Your task to perform on an android device: toggle notifications settings in the gmail app Image 0: 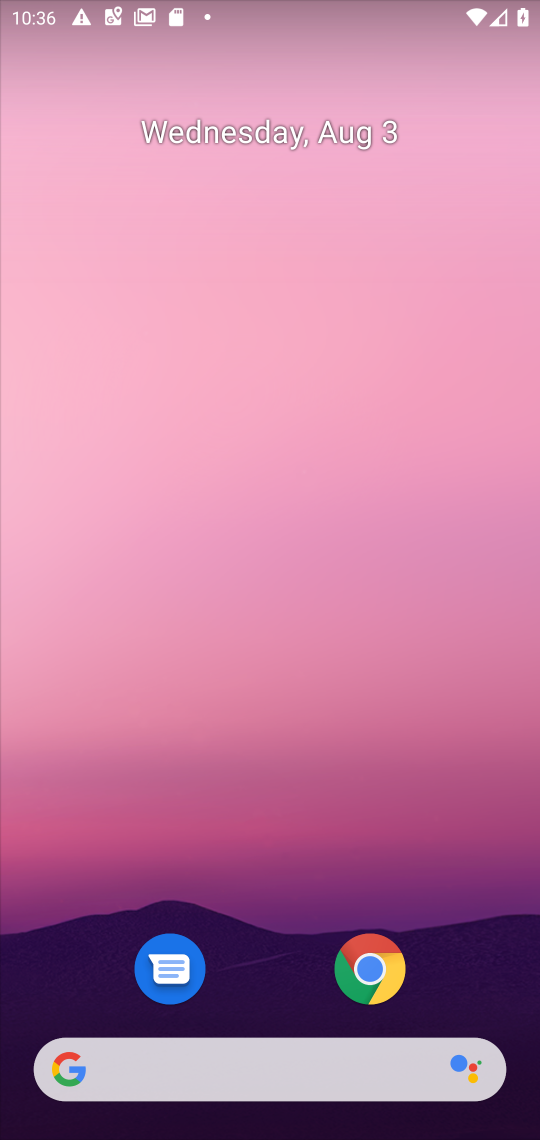
Step 0: drag from (306, 1005) to (143, 3)
Your task to perform on an android device: toggle notifications settings in the gmail app Image 1: 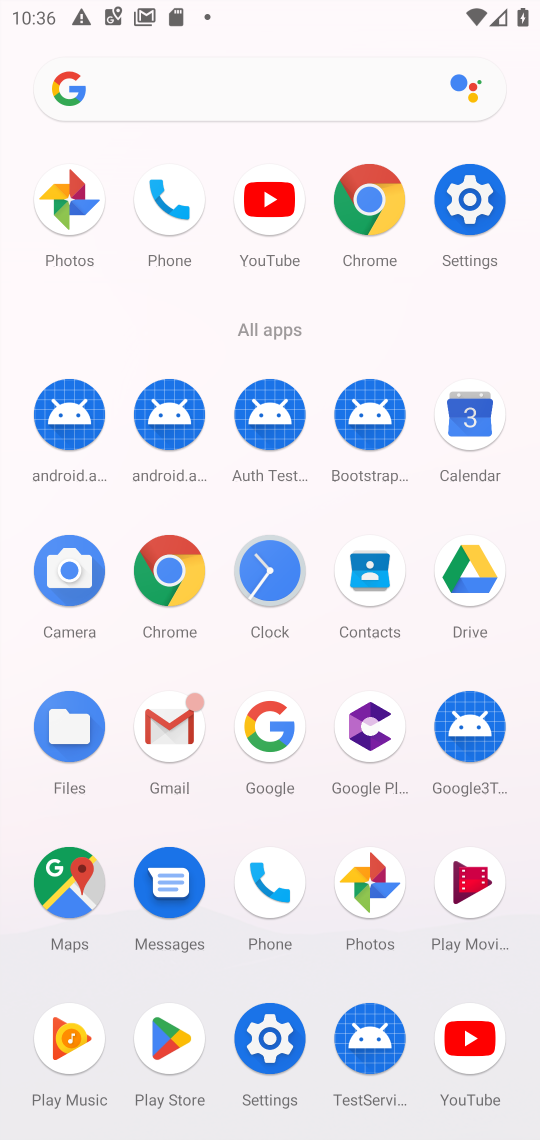
Step 1: click (194, 720)
Your task to perform on an android device: toggle notifications settings in the gmail app Image 2: 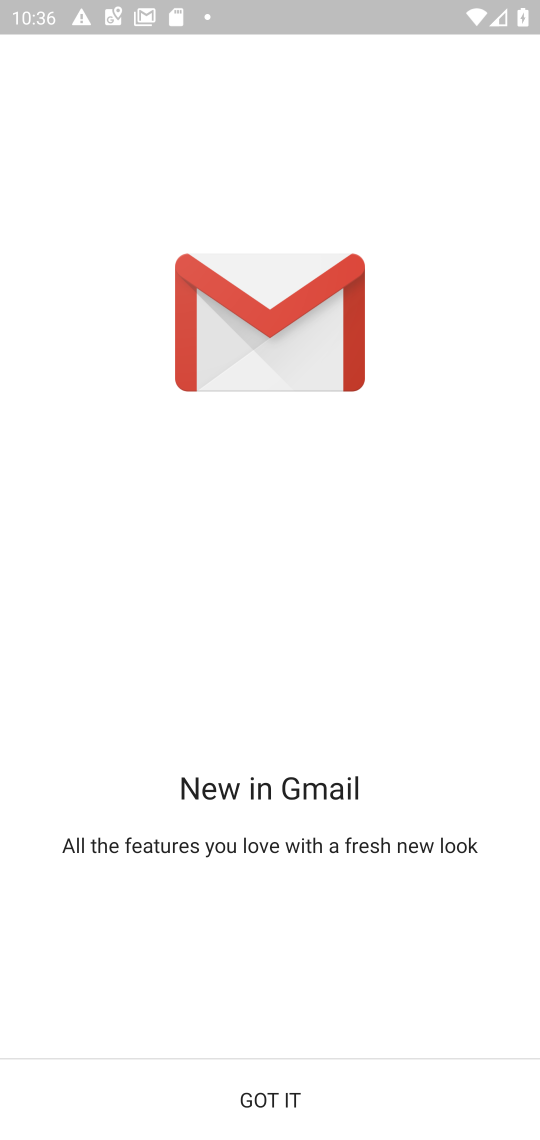
Step 2: click (267, 1080)
Your task to perform on an android device: toggle notifications settings in the gmail app Image 3: 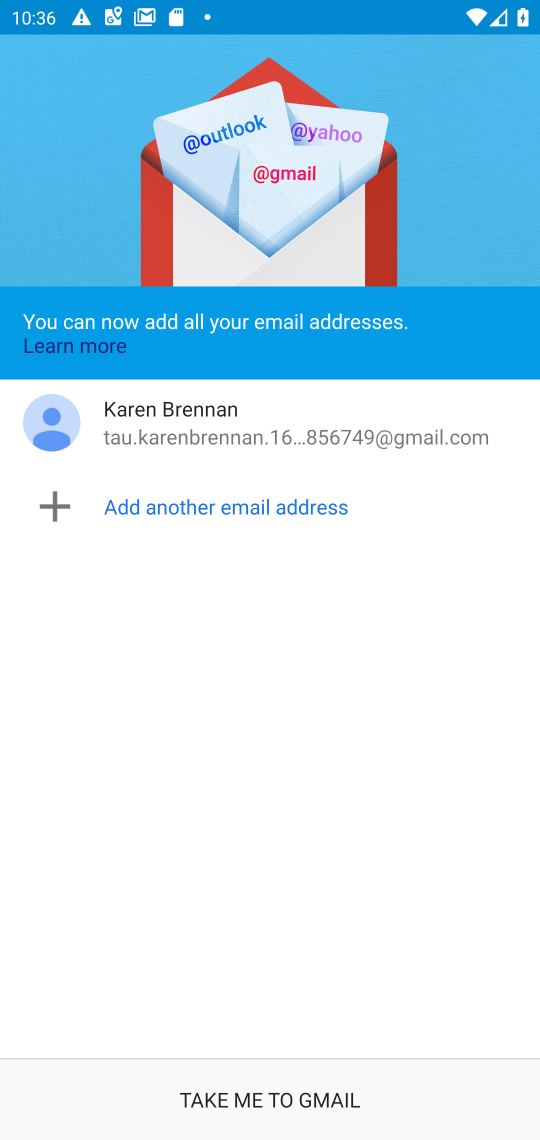
Step 3: click (328, 1079)
Your task to perform on an android device: toggle notifications settings in the gmail app Image 4: 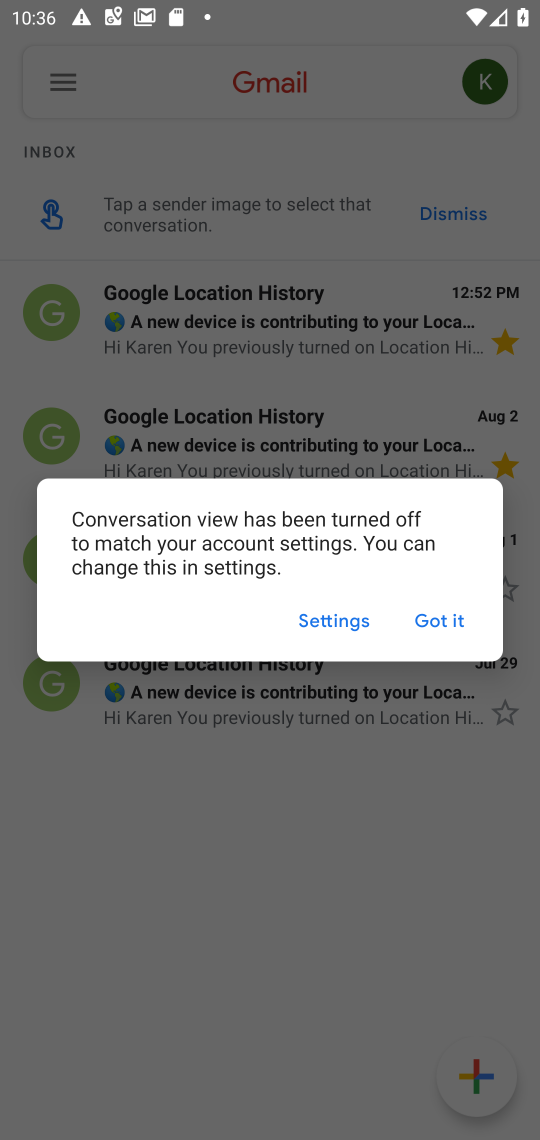
Step 4: click (444, 614)
Your task to perform on an android device: toggle notifications settings in the gmail app Image 5: 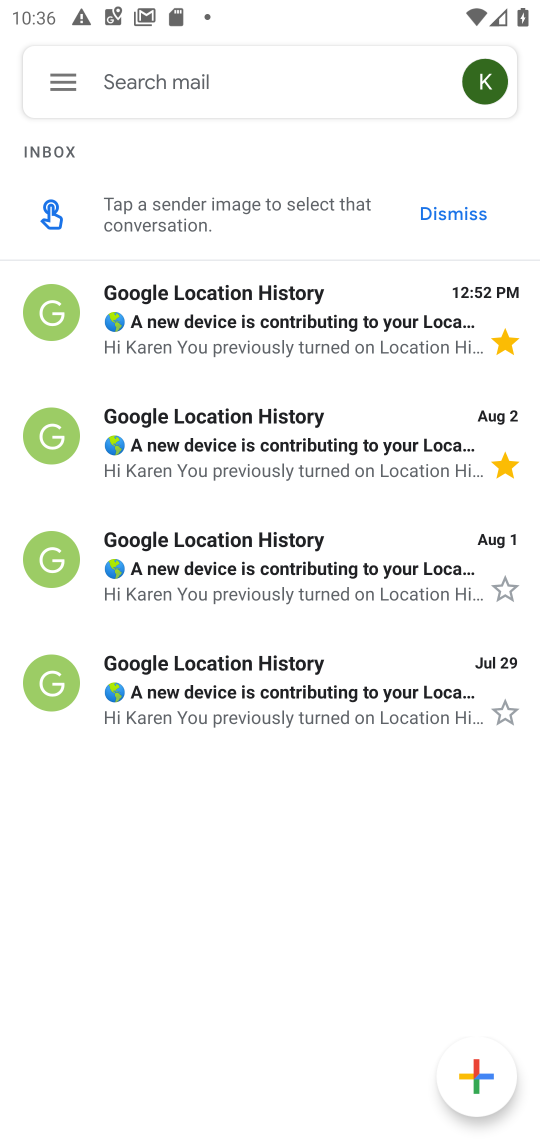
Step 5: click (40, 69)
Your task to perform on an android device: toggle notifications settings in the gmail app Image 6: 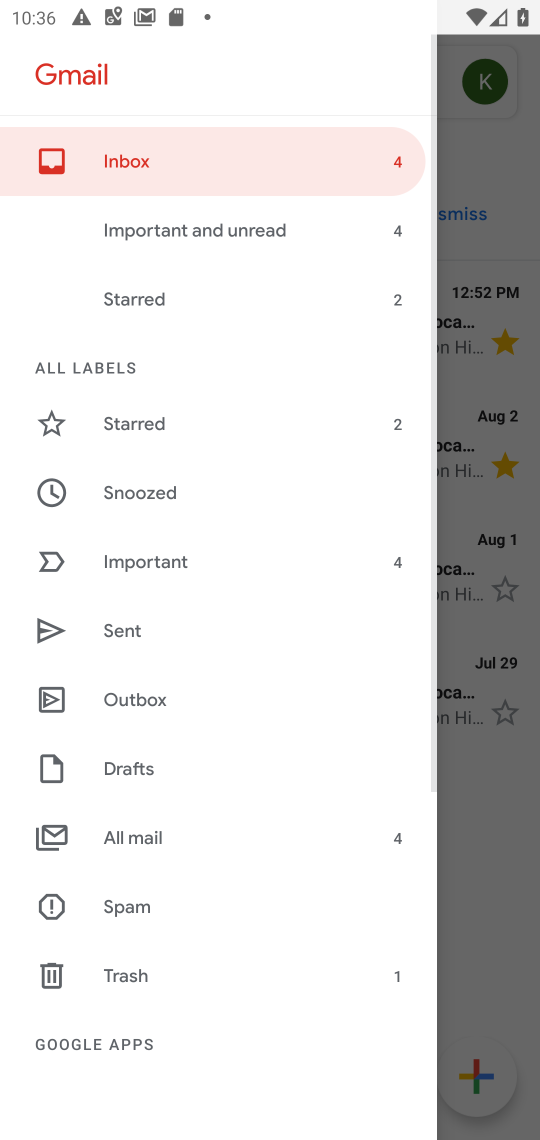
Step 6: drag from (167, 851) to (149, 154)
Your task to perform on an android device: toggle notifications settings in the gmail app Image 7: 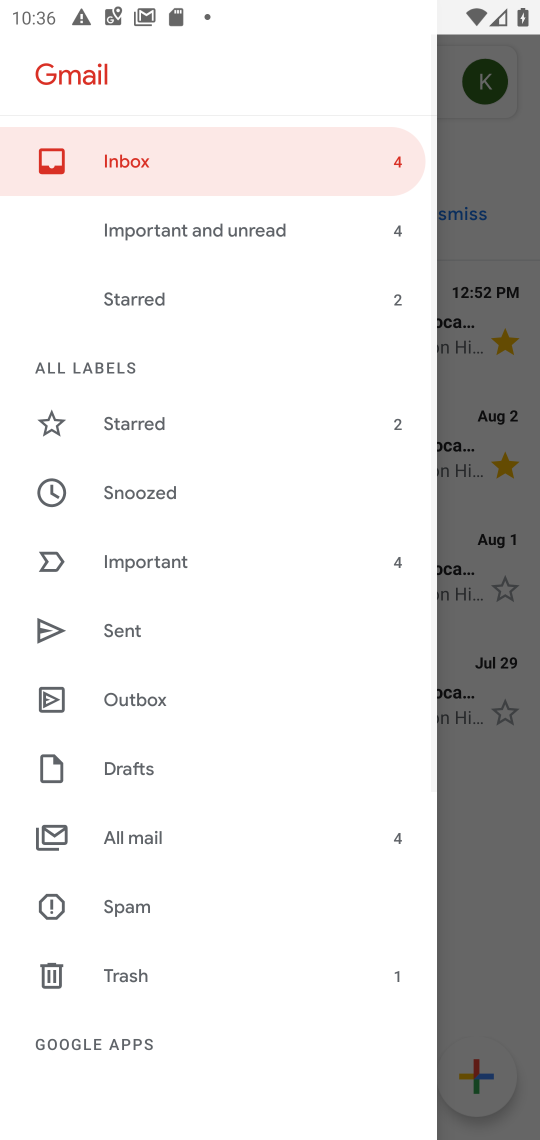
Step 7: drag from (163, 1023) to (186, 280)
Your task to perform on an android device: toggle notifications settings in the gmail app Image 8: 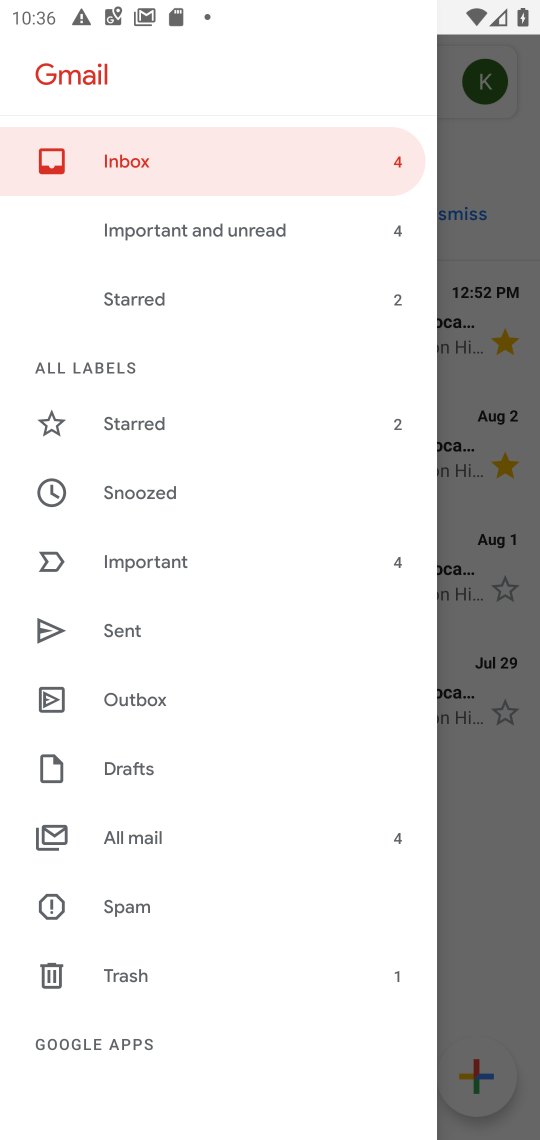
Step 8: drag from (197, 1065) to (186, 321)
Your task to perform on an android device: toggle notifications settings in the gmail app Image 9: 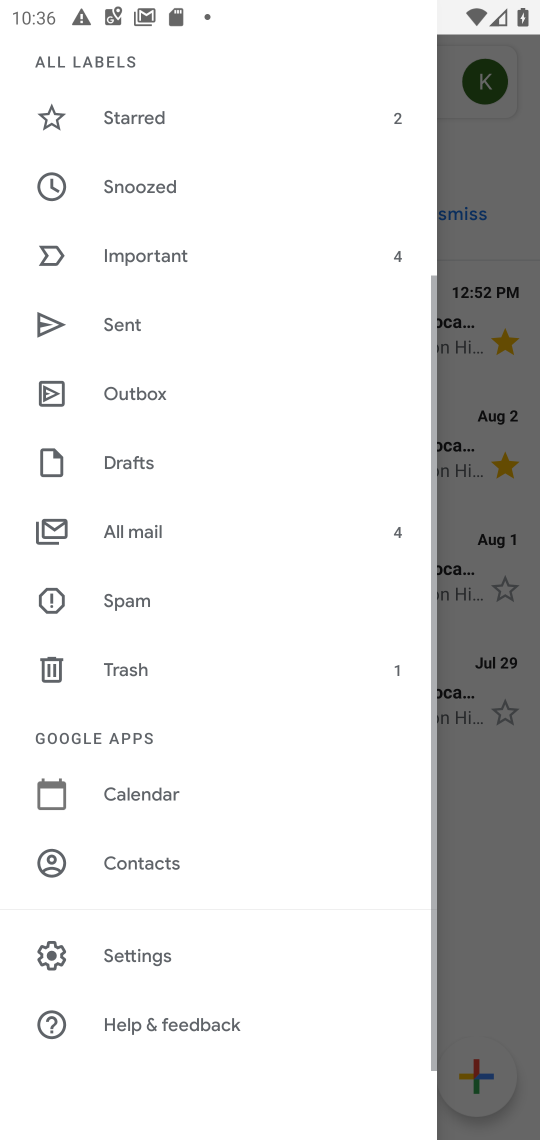
Step 9: click (155, 957)
Your task to perform on an android device: toggle notifications settings in the gmail app Image 10: 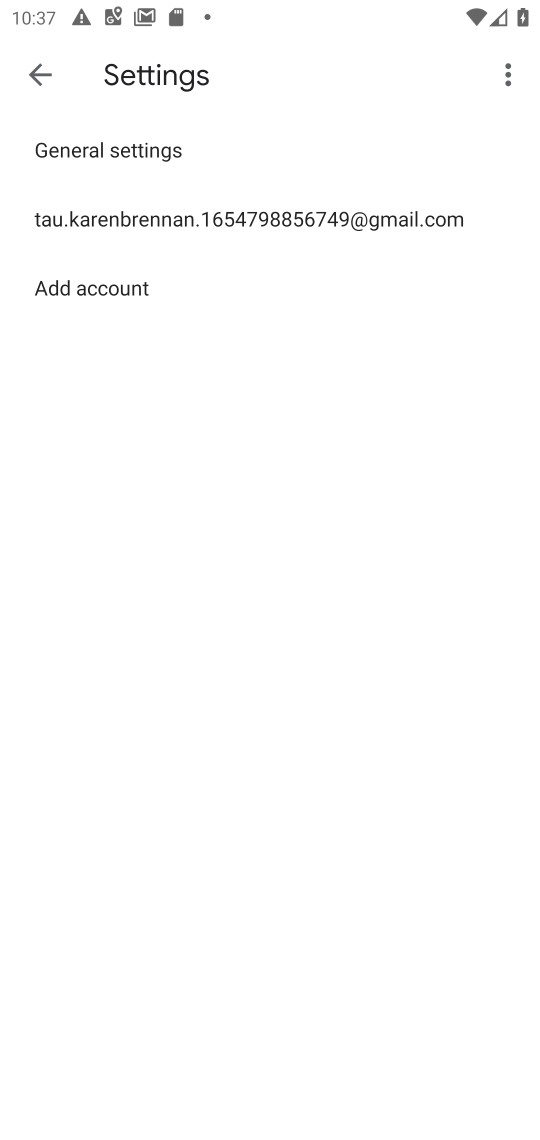
Step 10: click (80, 157)
Your task to perform on an android device: toggle notifications settings in the gmail app Image 11: 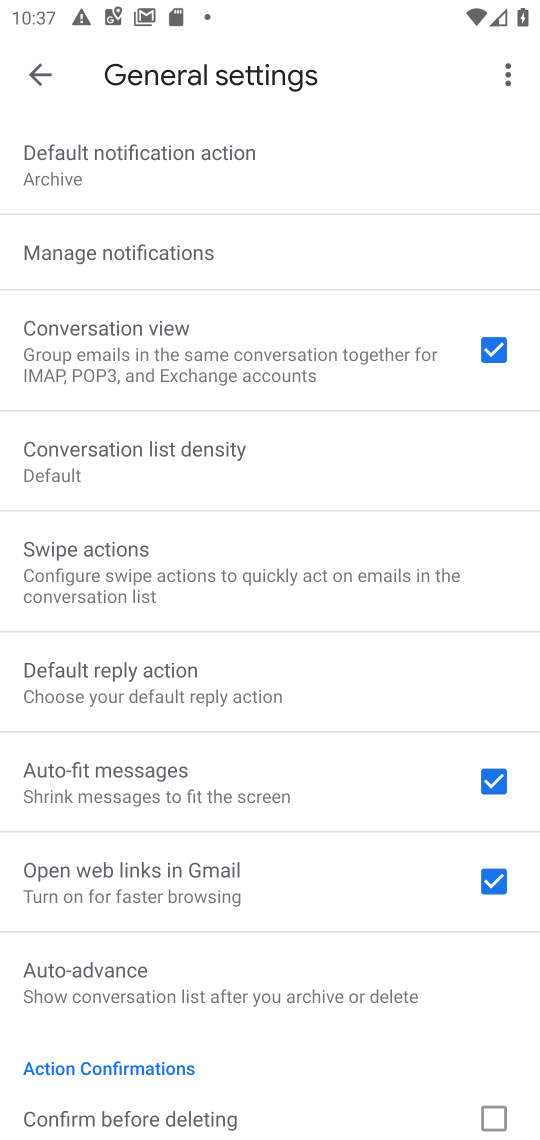
Step 11: click (96, 263)
Your task to perform on an android device: toggle notifications settings in the gmail app Image 12: 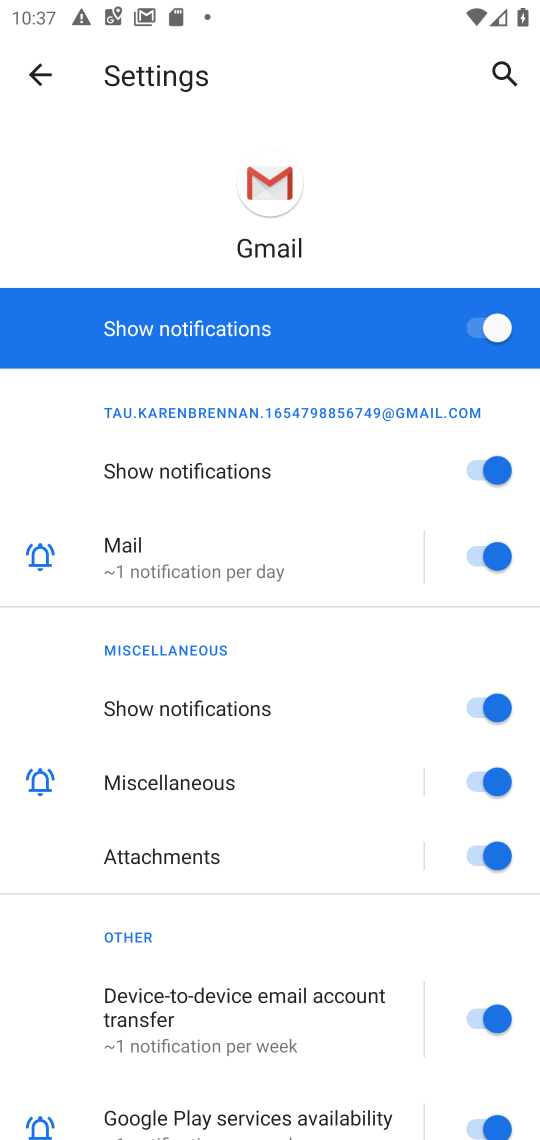
Step 12: click (512, 332)
Your task to perform on an android device: toggle notifications settings in the gmail app Image 13: 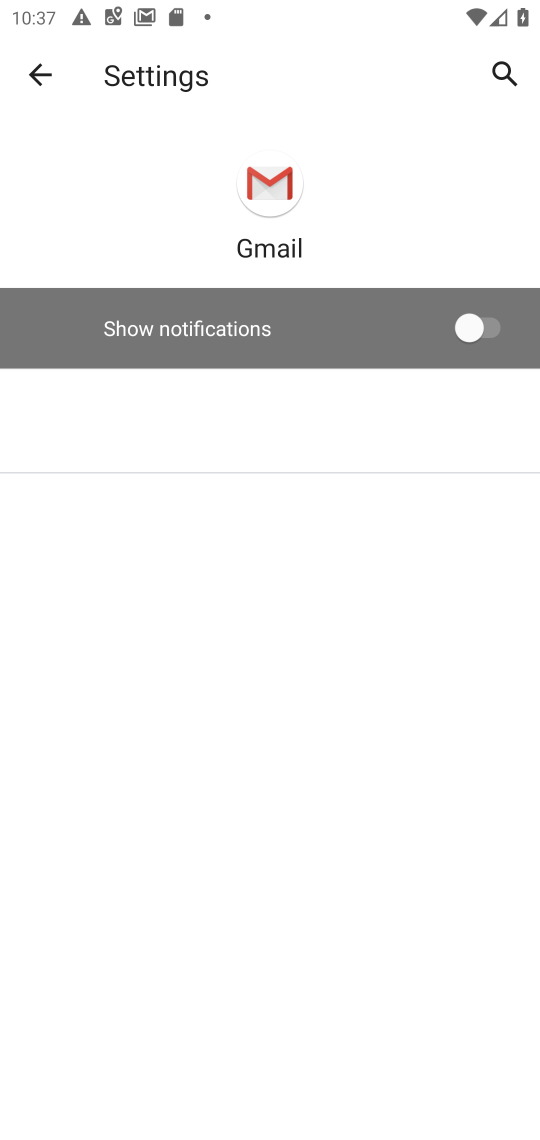
Step 13: task complete